Your task to perform on an android device: Add "macbook pro" to the cart on amazon.com, then select checkout. Image 0: 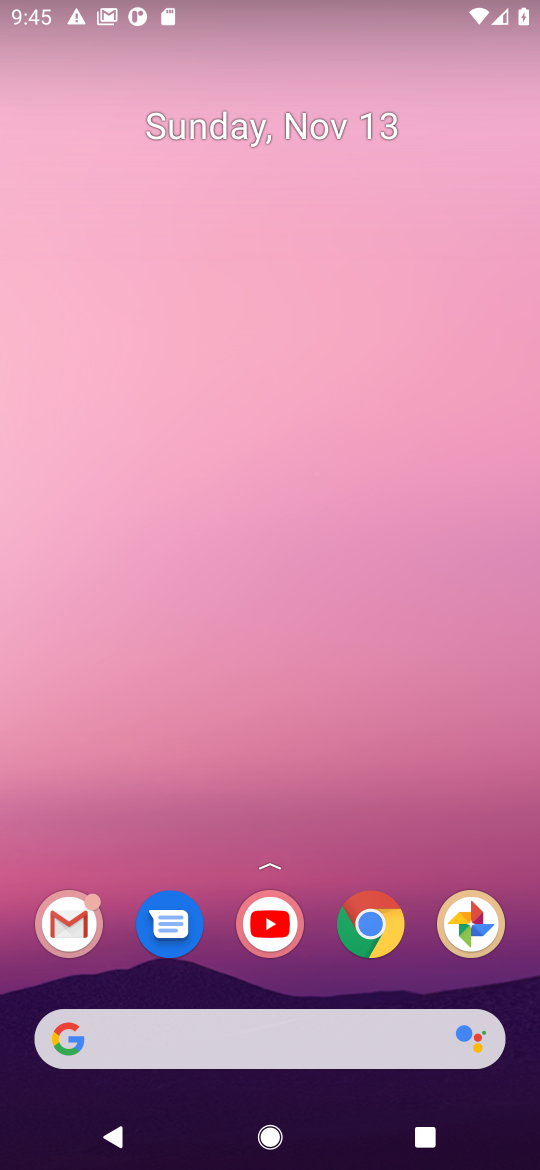
Step 0: click (379, 927)
Your task to perform on an android device: Add "macbook pro" to the cart on amazon.com, then select checkout. Image 1: 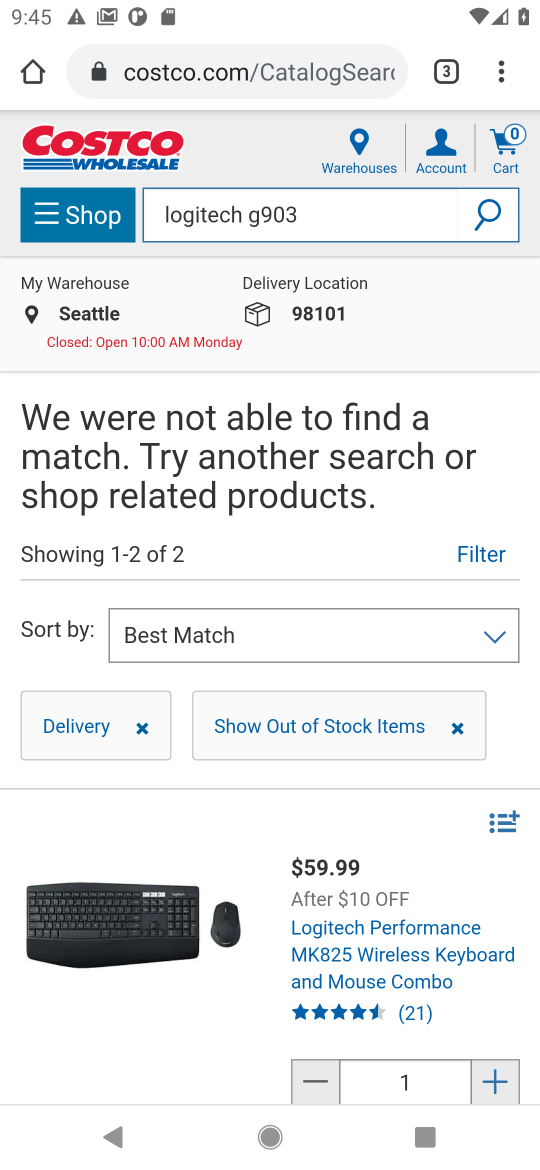
Step 1: click (232, 82)
Your task to perform on an android device: Add "macbook pro" to the cart on amazon.com, then select checkout. Image 2: 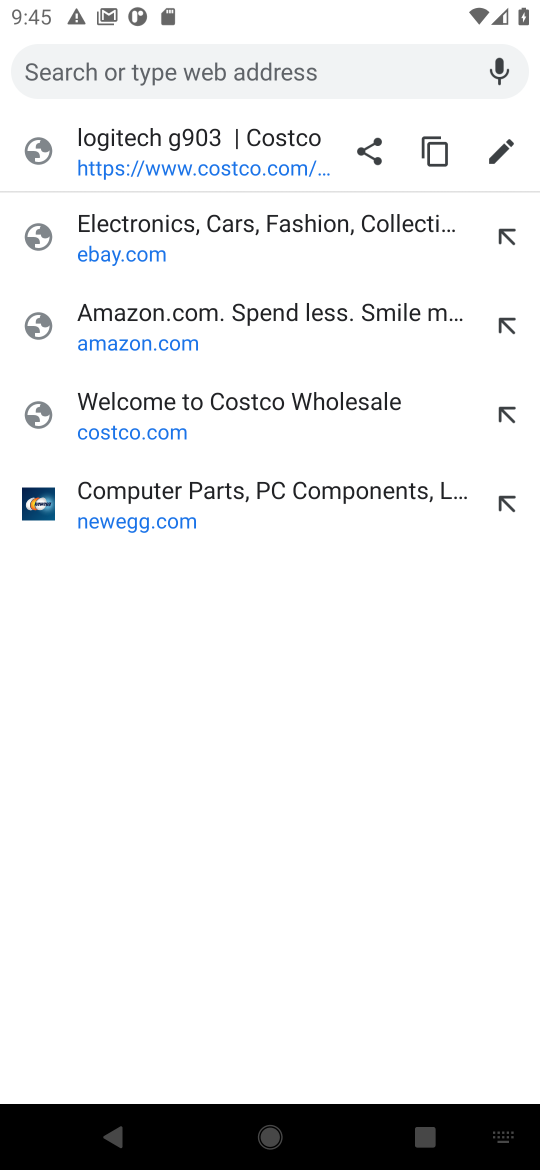
Step 2: click (109, 338)
Your task to perform on an android device: Add "macbook pro" to the cart on amazon.com, then select checkout. Image 3: 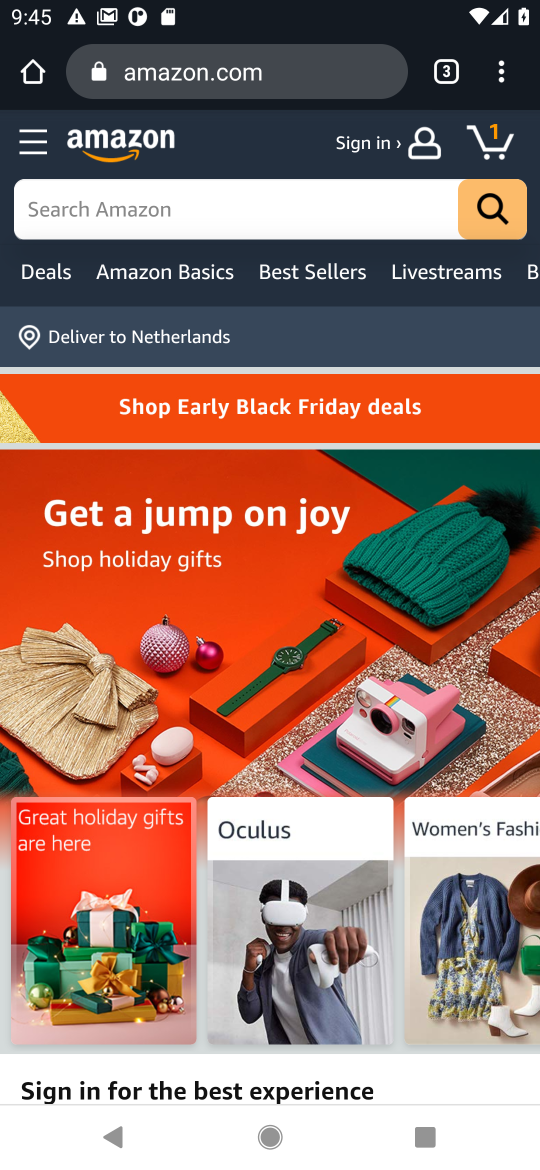
Step 3: click (144, 210)
Your task to perform on an android device: Add "macbook pro" to the cart on amazon.com, then select checkout. Image 4: 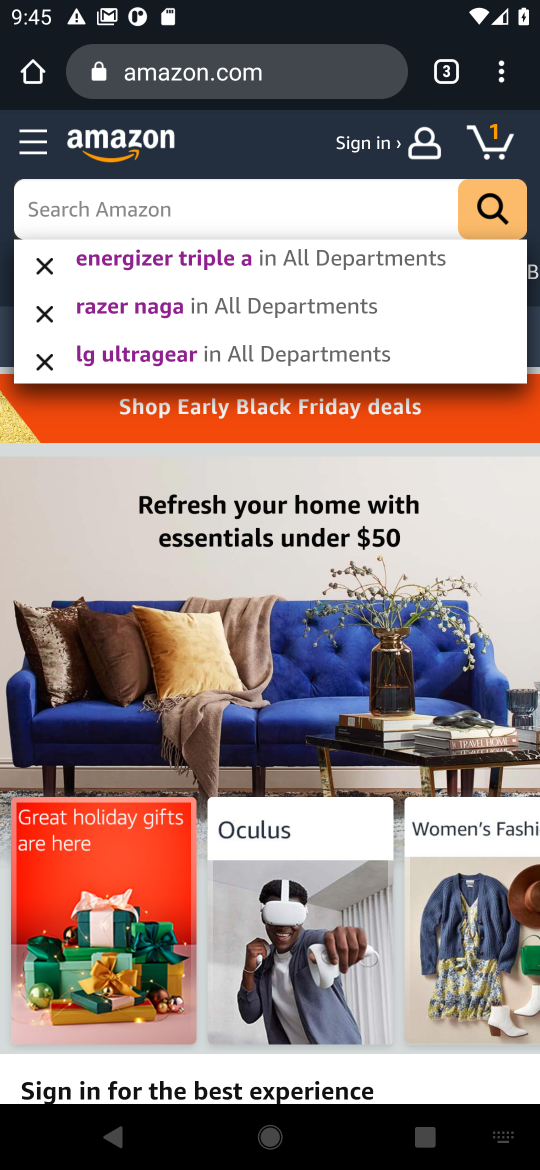
Step 4: type "macbook pro"
Your task to perform on an android device: Add "macbook pro" to the cart on amazon.com, then select checkout. Image 5: 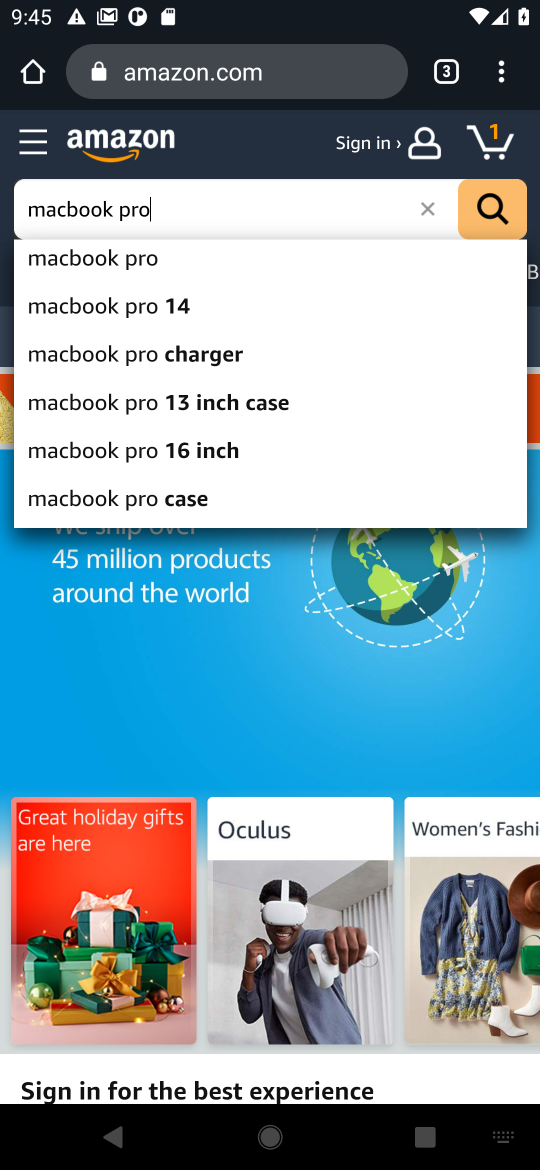
Step 5: click (124, 263)
Your task to perform on an android device: Add "macbook pro" to the cart on amazon.com, then select checkout. Image 6: 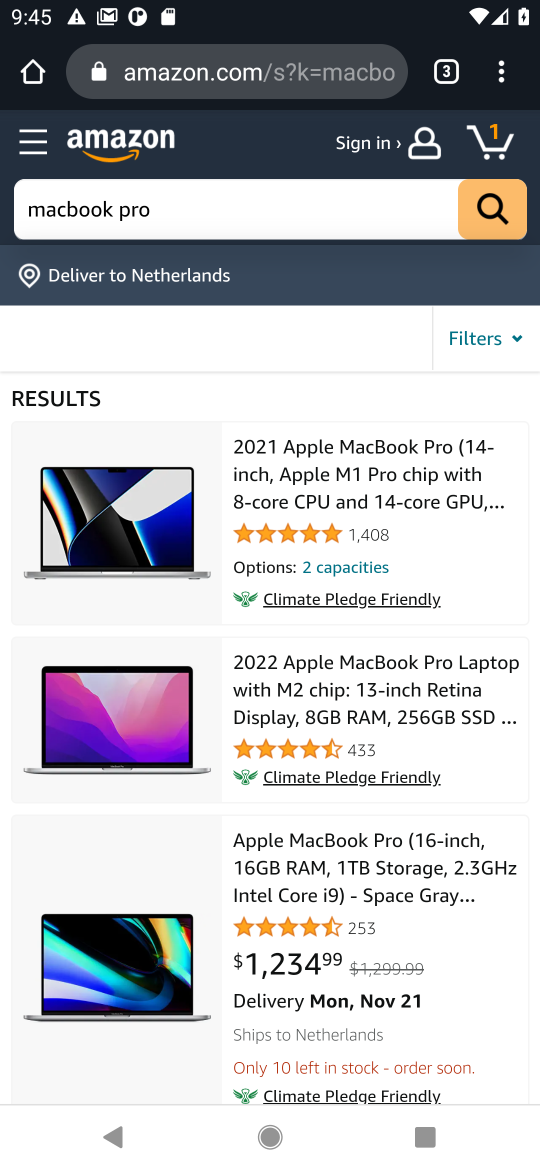
Step 6: click (102, 995)
Your task to perform on an android device: Add "macbook pro" to the cart on amazon.com, then select checkout. Image 7: 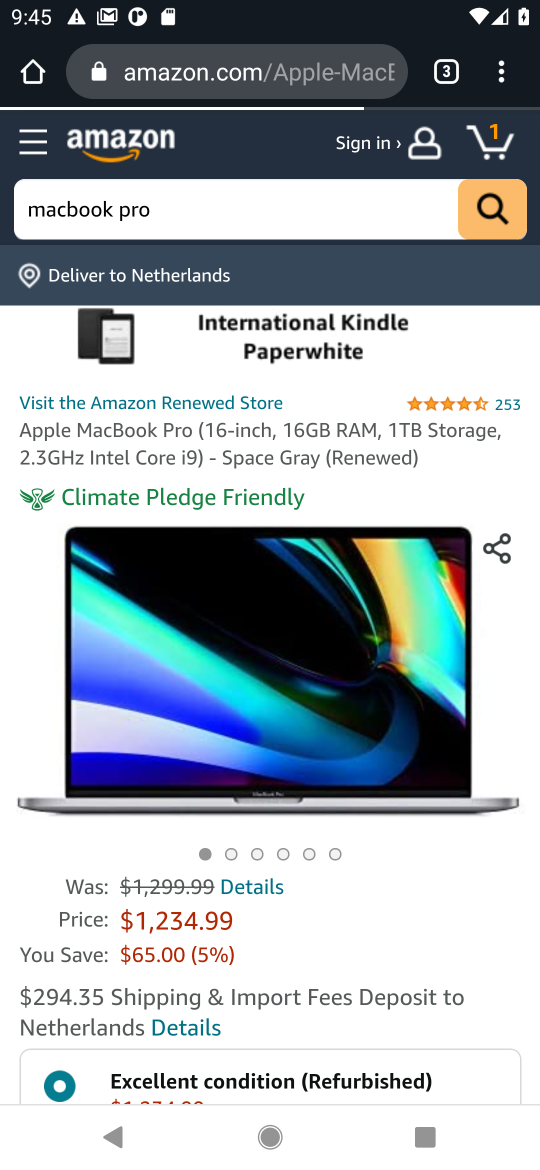
Step 7: drag from (220, 876) to (263, 384)
Your task to perform on an android device: Add "macbook pro" to the cart on amazon.com, then select checkout. Image 8: 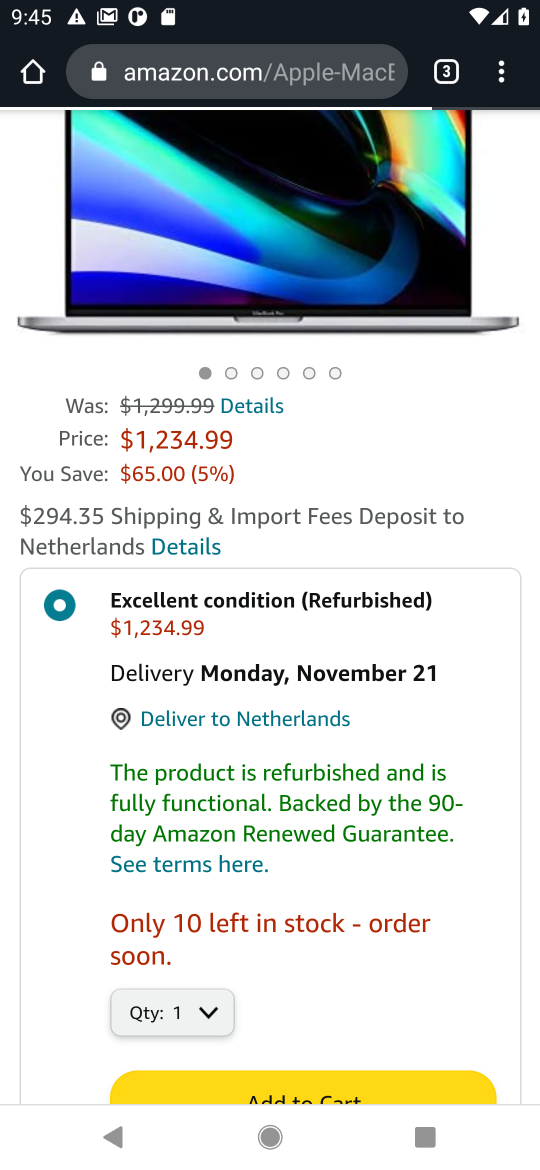
Step 8: drag from (229, 971) to (241, 669)
Your task to perform on an android device: Add "macbook pro" to the cart on amazon.com, then select checkout. Image 9: 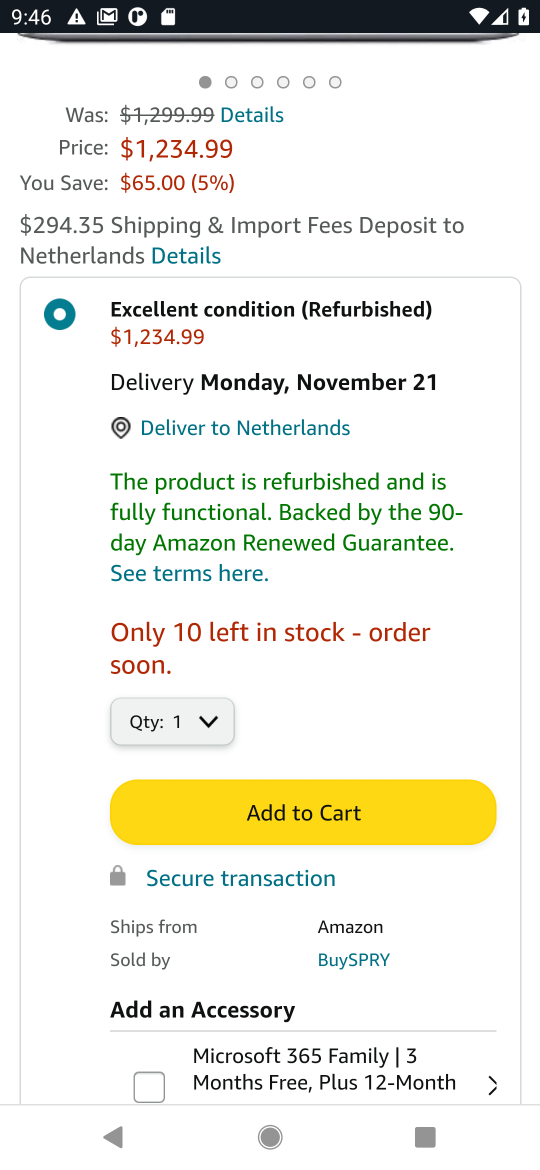
Step 9: click (241, 815)
Your task to perform on an android device: Add "macbook pro" to the cart on amazon.com, then select checkout. Image 10: 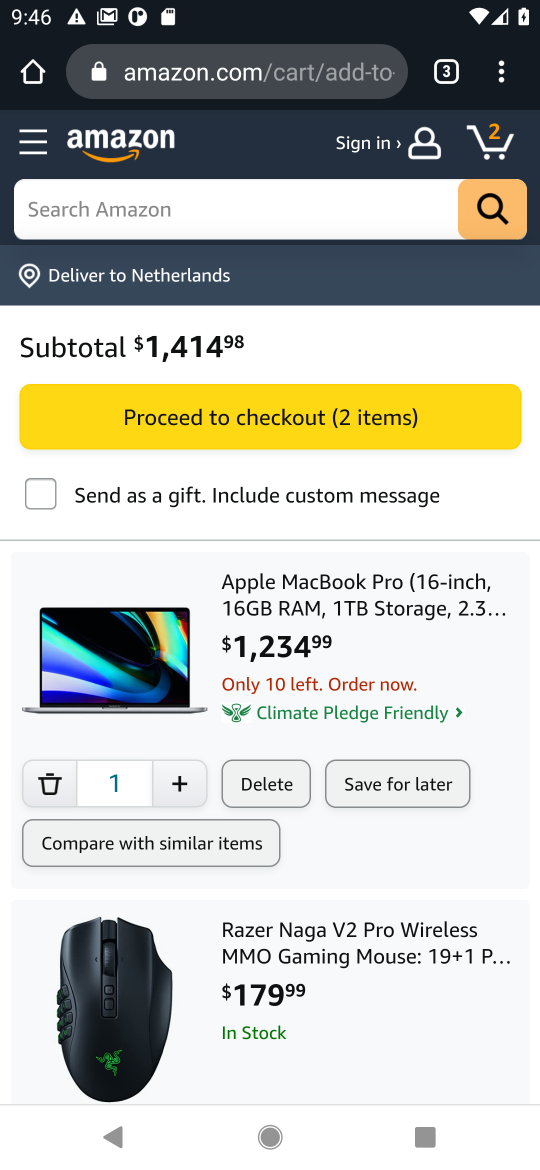
Step 10: click (266, 426)
Your task to perform on an android device: Add "macbook pro" to the cart on amazon.com, then select checkout. Image 11: 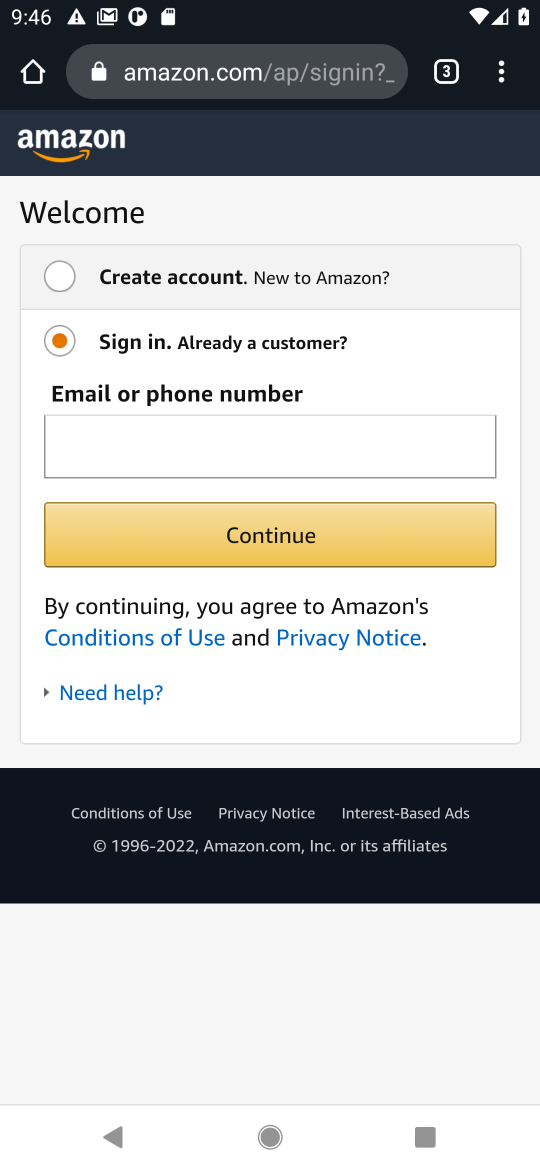
Step 11: task complete